Your task to perform on an android device: turn off notifications in google photos Image 0: 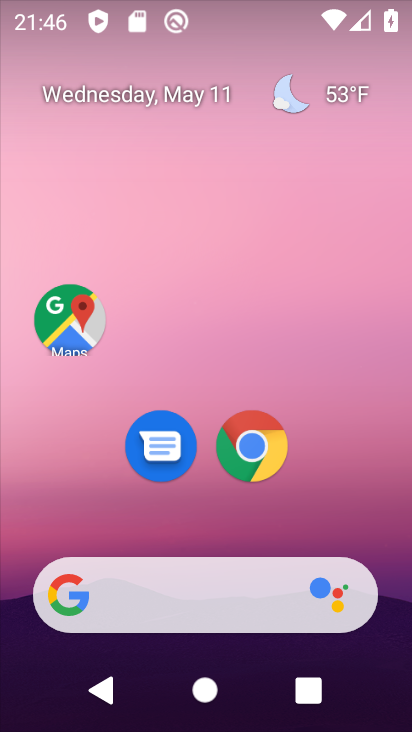
Step 0: drag from (350, 483) to (291, 142)
Your task to perform on an android device: turn off notifications in google photos Image 1: 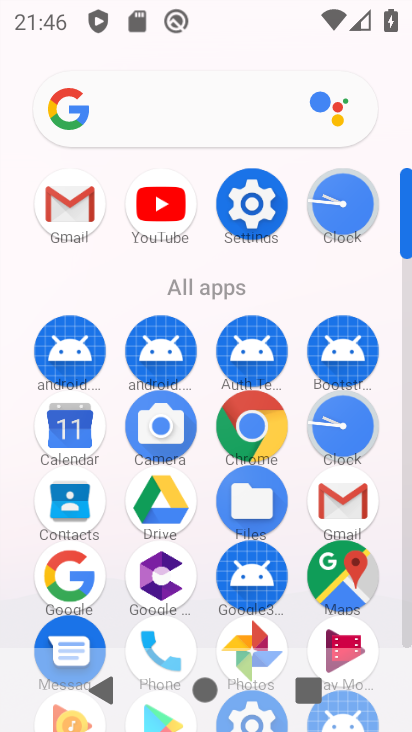
Step 1: click (257, 631)
Your task to perform on an android device: turn off notifications in google photos Image 2: 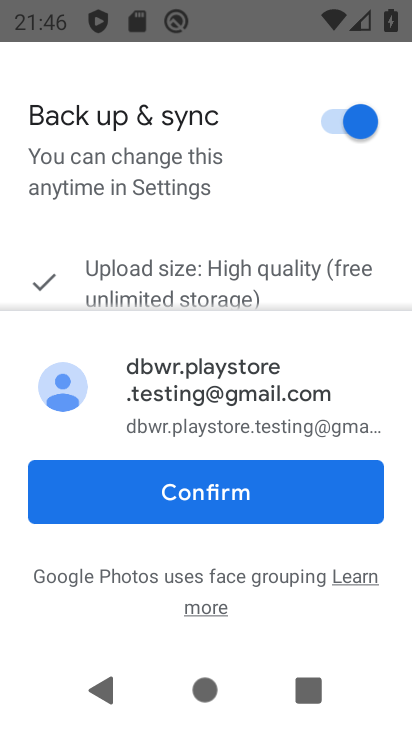
Step 2: click (219, 484)
Your task to perform on an android device: turn off notifications in google photos Image 3: 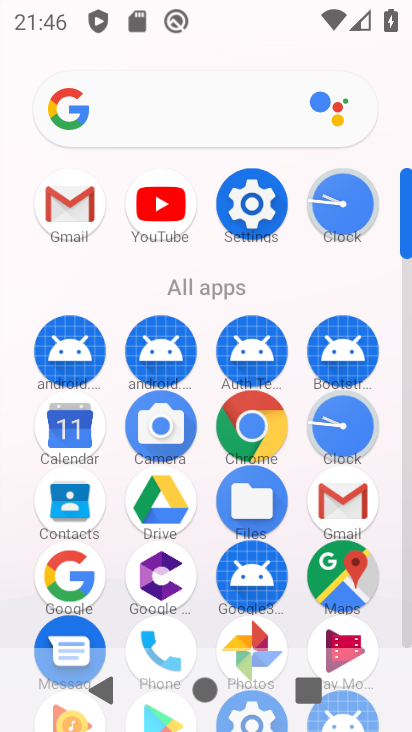
Step 3: click (245, 630)
Your task to perform on an android device: turn off notifications in google photos Image 4: 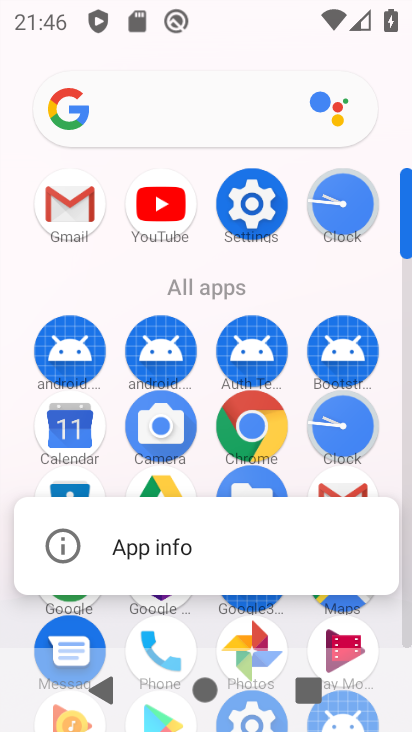
Step 4: click (181, 556)
Your task to perform on an android device: turn off notifications in google photos Image 5: 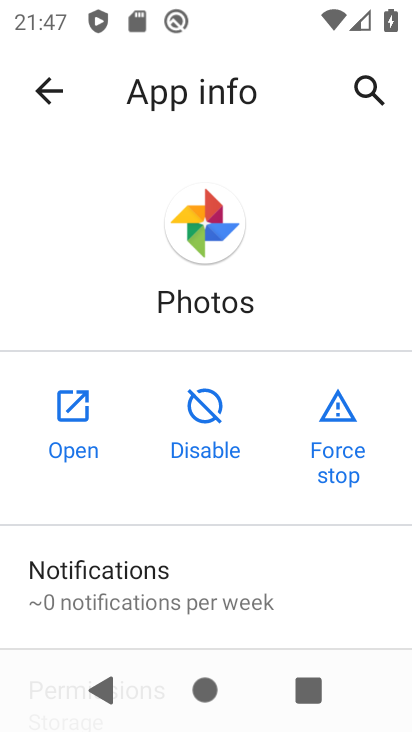
Step 5: drag from (213, 572) to (202, 319)
Your task to perform on an android device: turn off notifications in google photos Image 6: 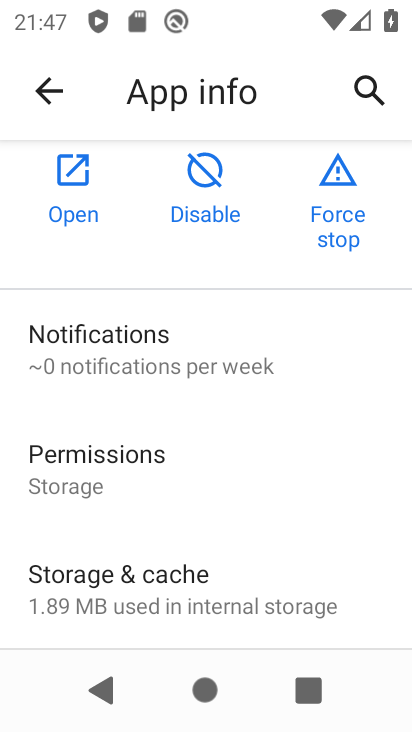
Step 6: click (200, 334)
Your task to perform on an android device: turn off notifications in google photos Image 7: 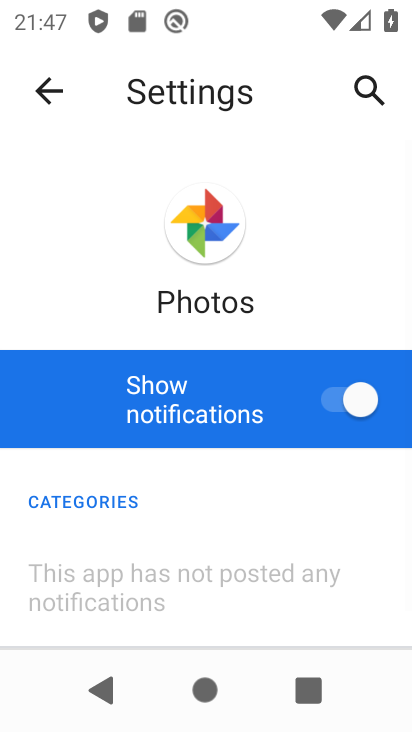
Step 7: click (358, 391)
Your task to perform on an android device: turn off notifications in google photos Image 8: 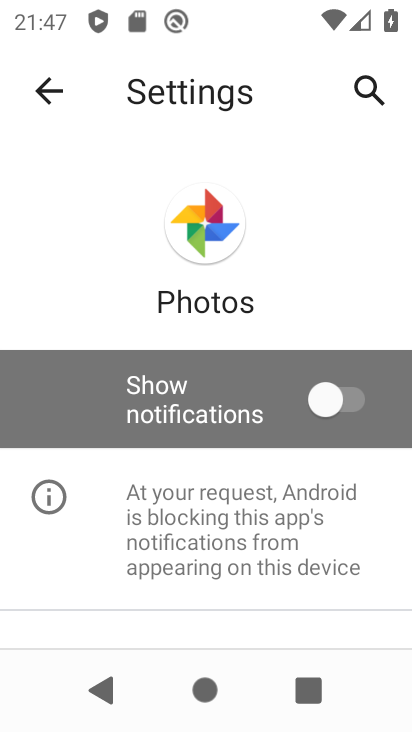
Step 8: task complete